Your task to perform on an android device: turn on data saver in the chrome app Image 0: 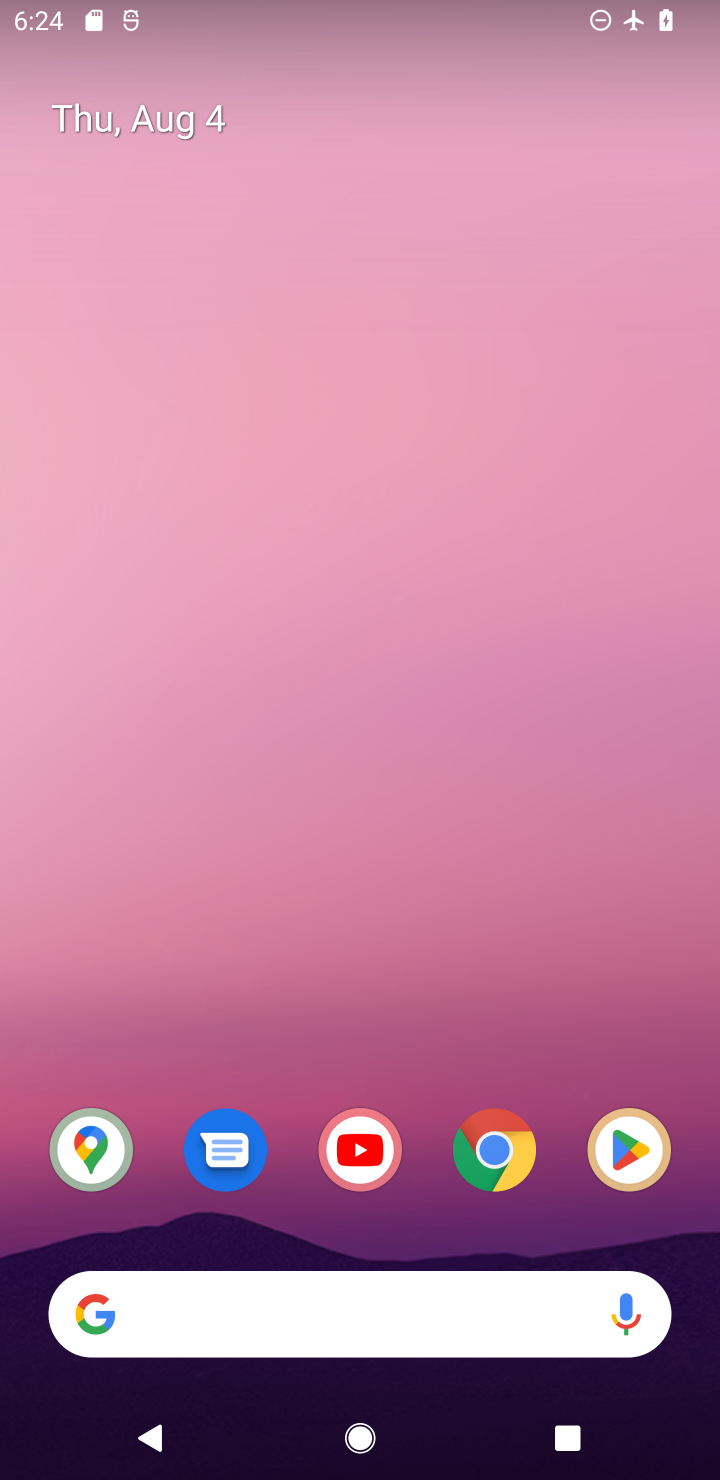
Step 0: drag from (386, 1188) to (653, 4)
Your task to perform on an android device: turn on data saver in the chrome app Image 1: 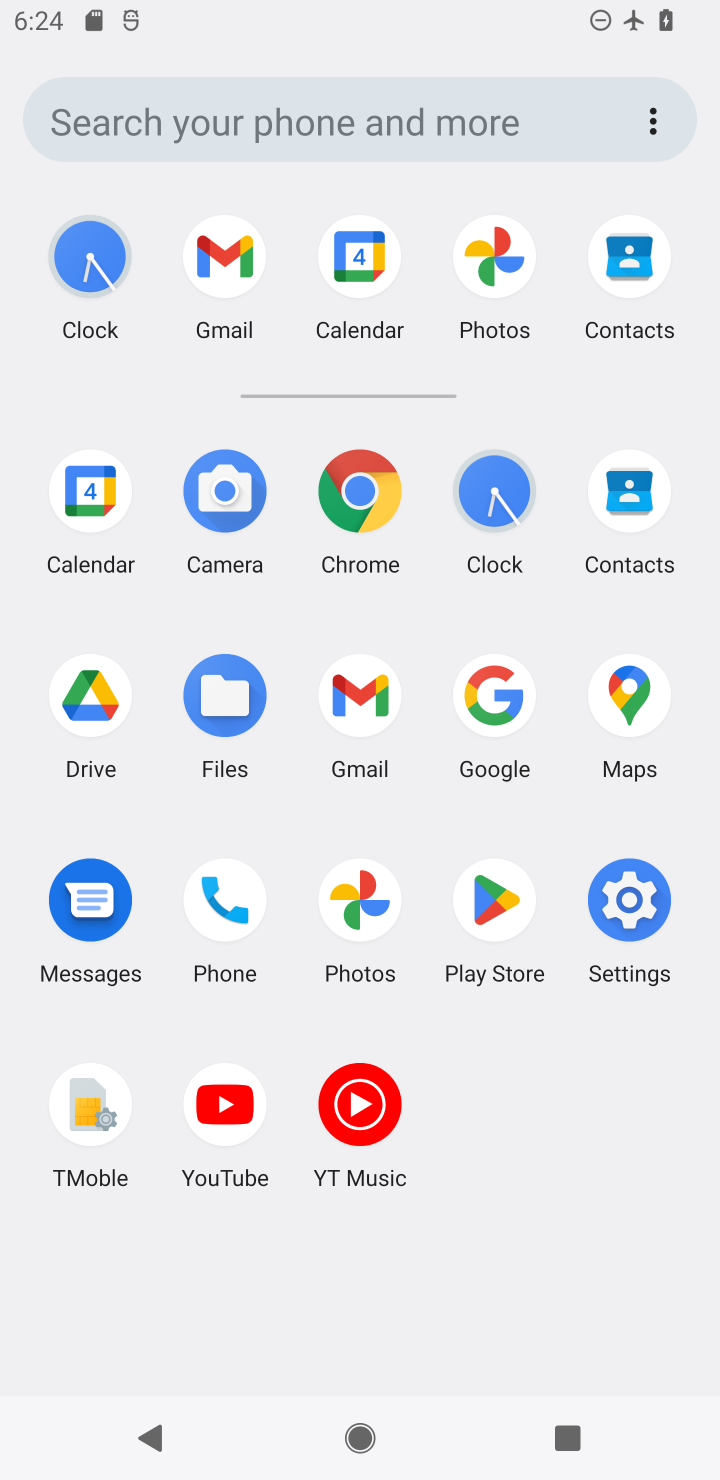
Step 1: click (334, 481)
Your task to perform on an android device: turn on data saver in the chrome app Image 2: 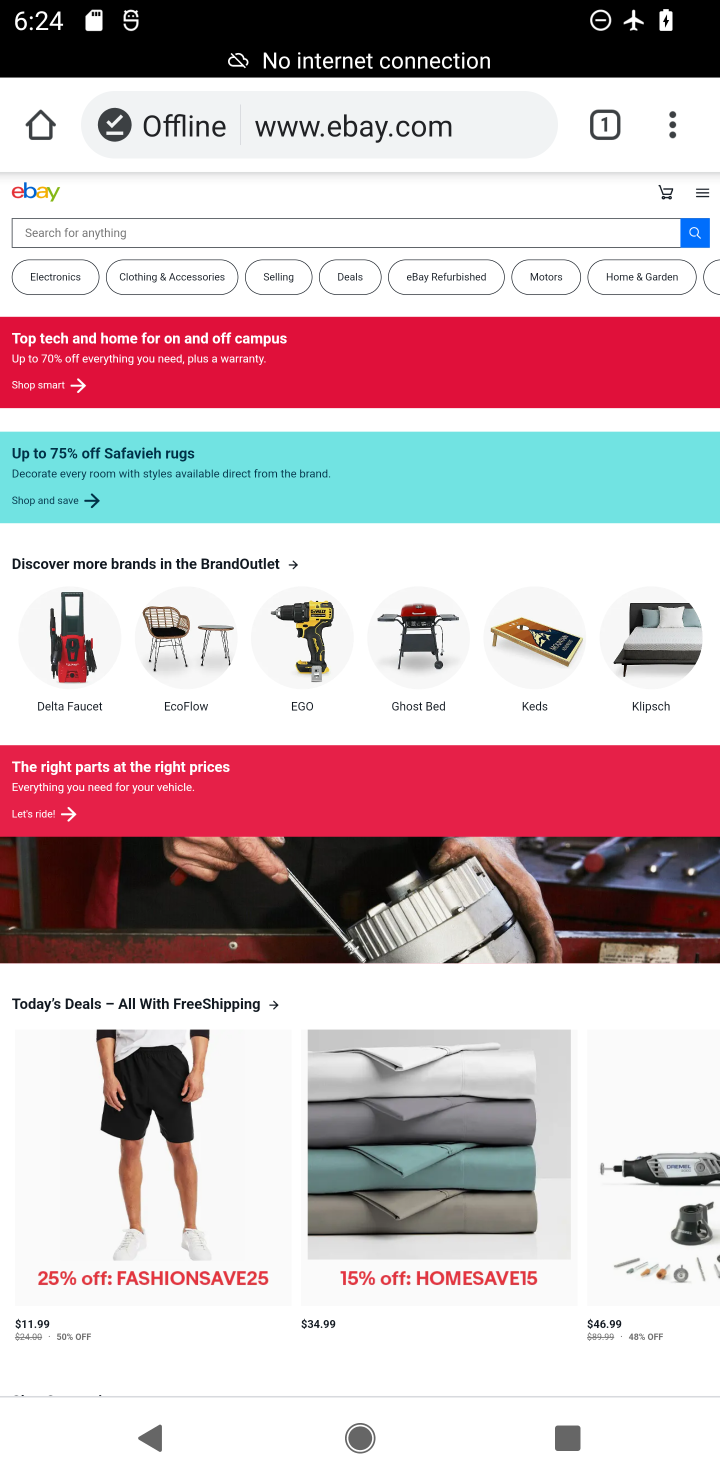
Step 2: click (669, 123)
Your task to perform on an android device: turn on data saver in the chrome app Image 3: 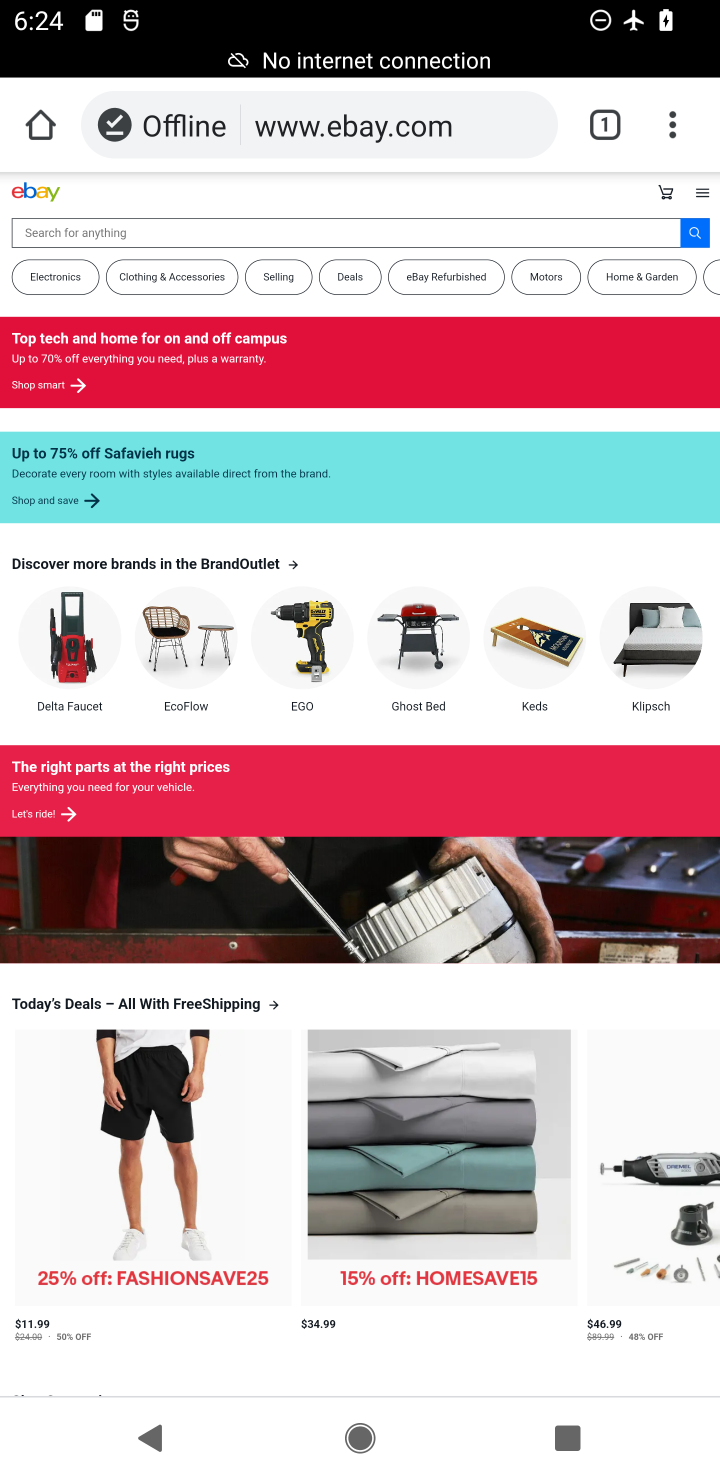
Step 3: click (671, 110)
Your task to perform on an android device: turn on data saver in the chrome app Image 4: 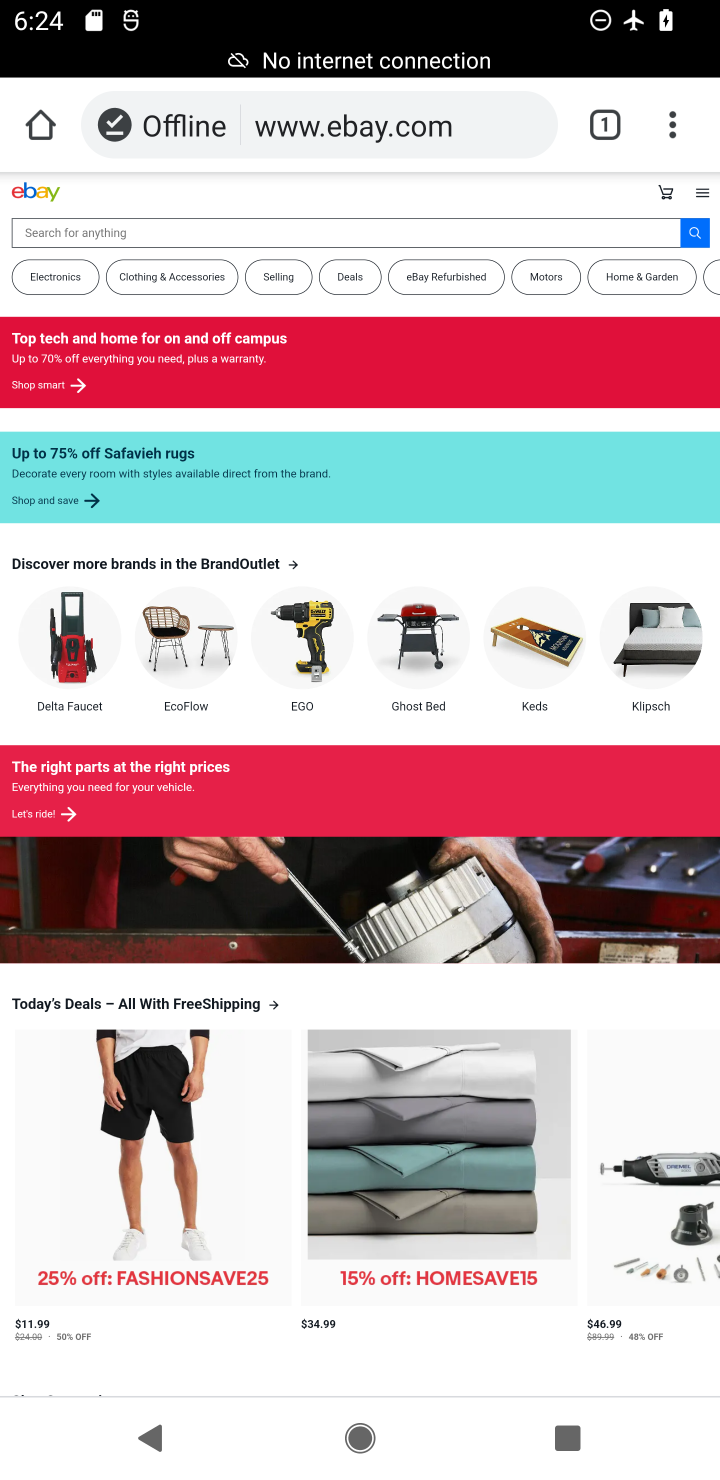
Step 4: drag from (678, 114) to (463, 1194)
Your task to perform on an android device: turn on data saver in the chrome app Image 5: 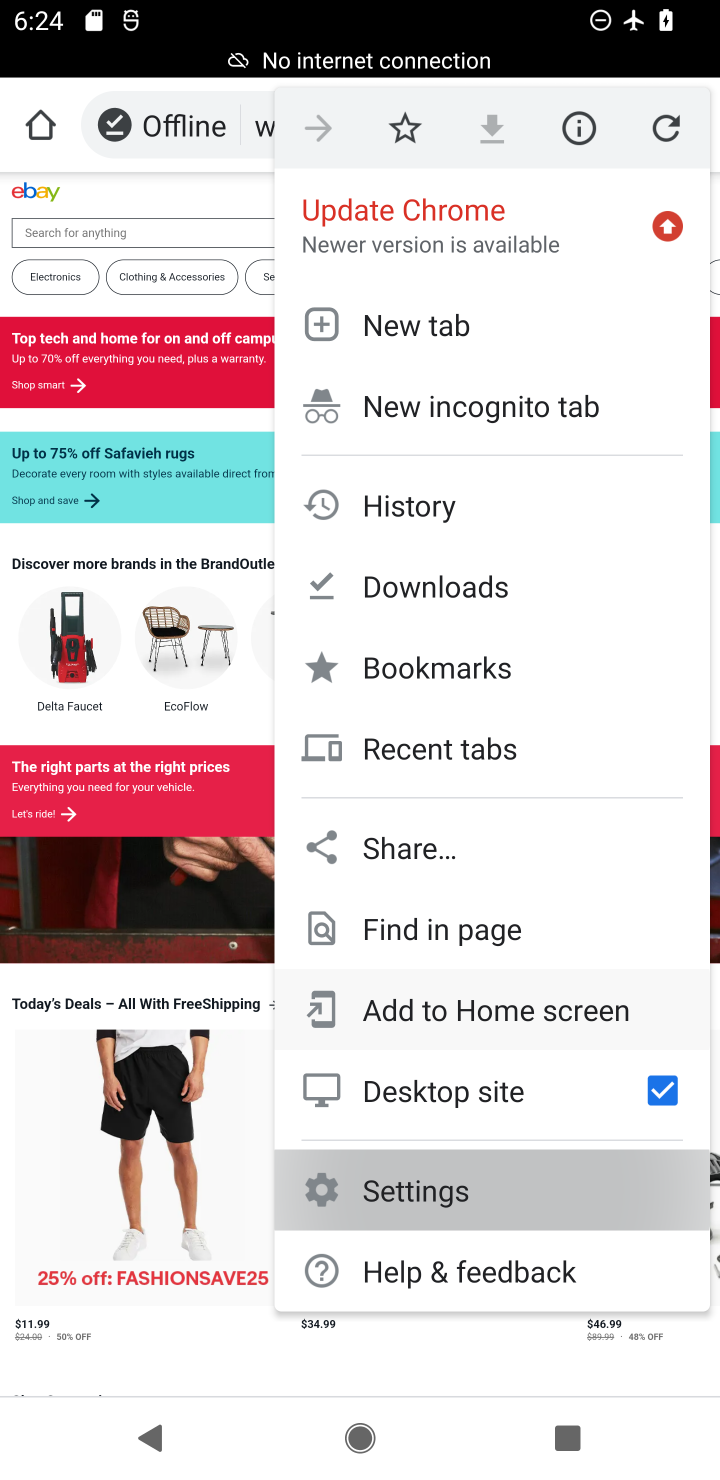
Step 5: click (461, 1197)
Your task to perform on an android device: turn on data saver in the chrome app Image 6: 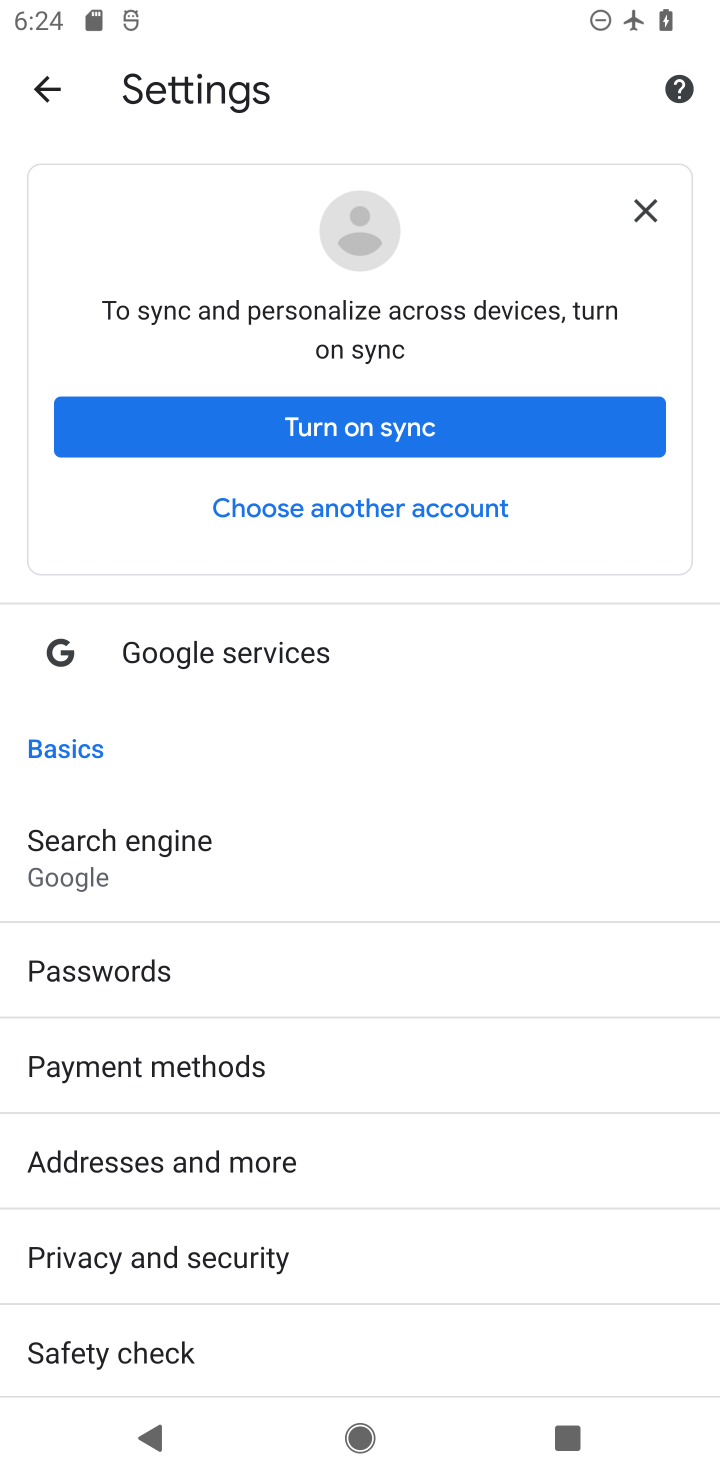
Step 6: drag from (284, 1294) to (379, 132)
Your task to perform on an android device: turn on data saver in the chrome app Image 7: 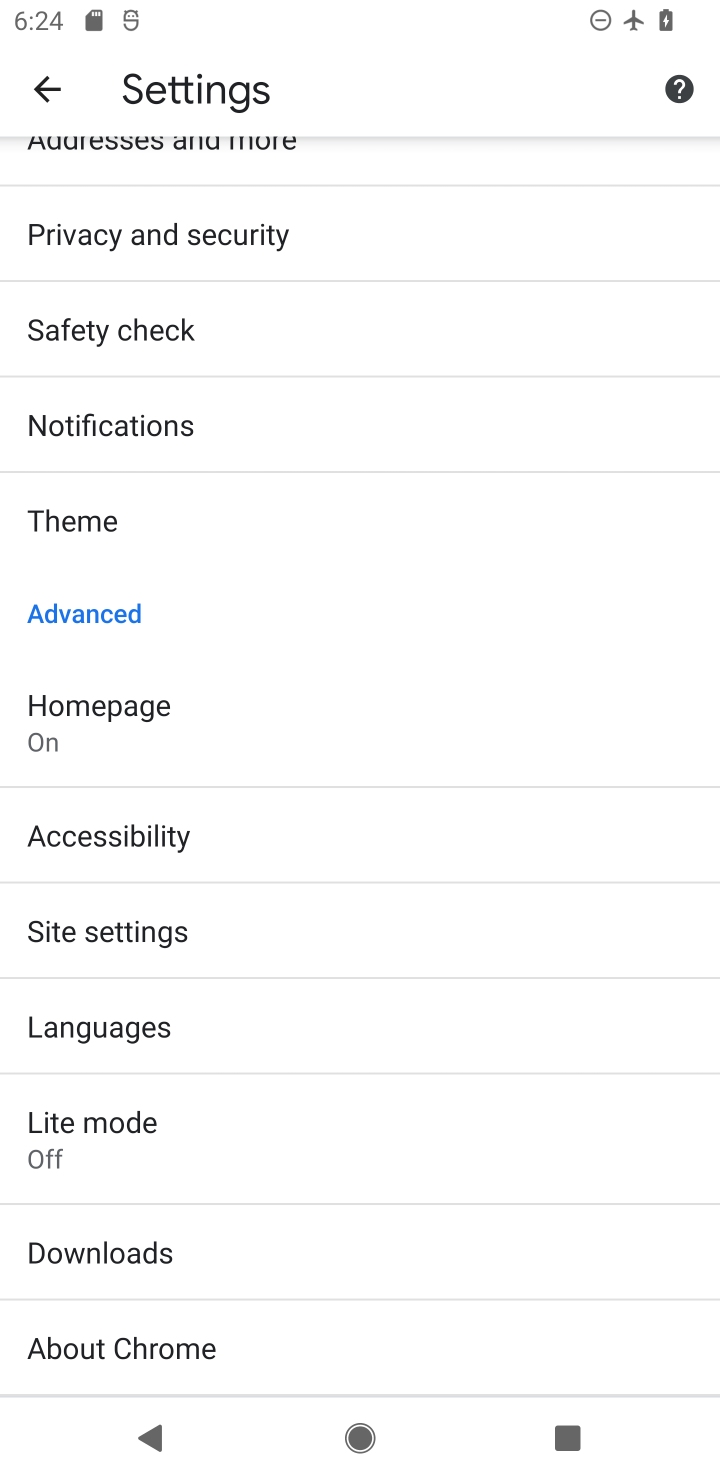
Step 7: click (169, 1140)
Your task to perform on an android device: turn on data saver in the chrome app Image 8: 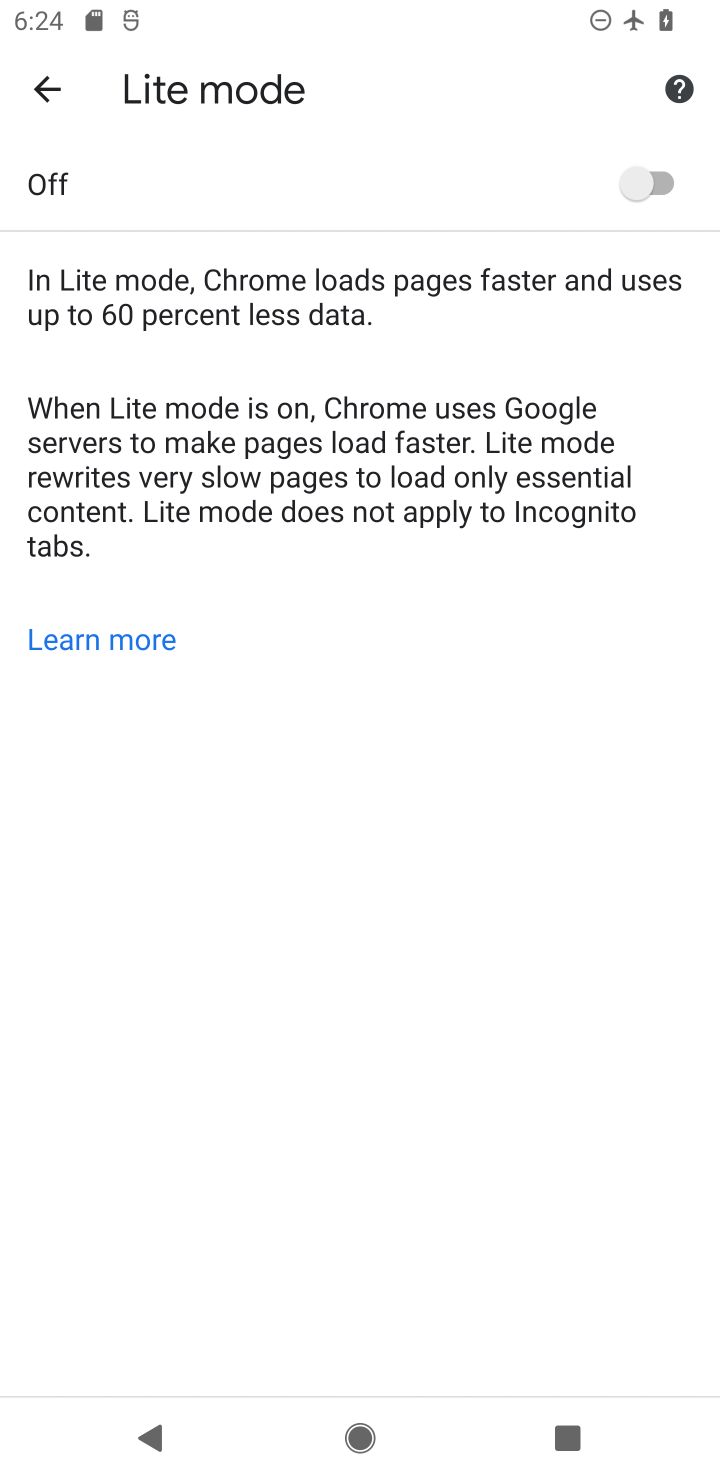
Step 8: click (651, 182)
Your task to perform on an android device: turn on data saver in the chrome app Image 9: 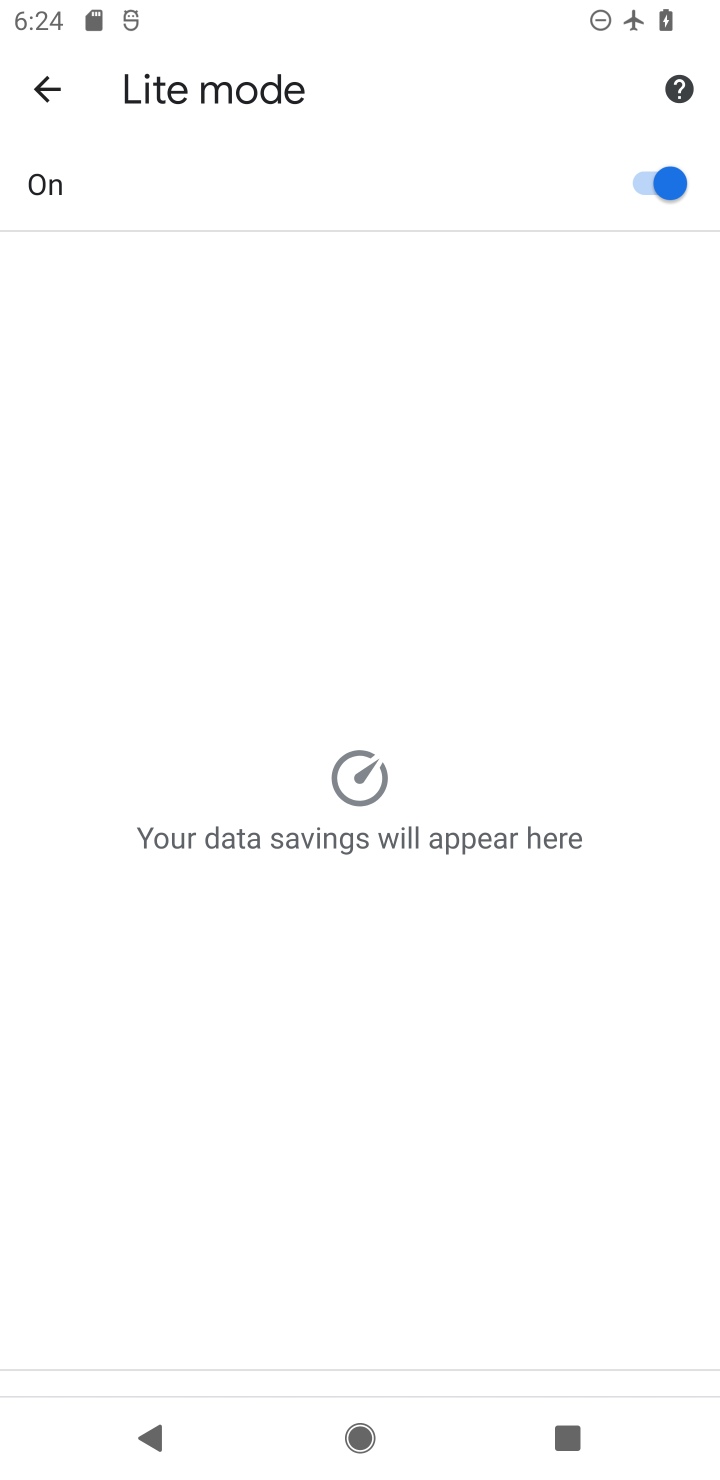
Step 9: task complete